Your task to perform on an android device: turn off priority inbox in the gmail app Image 0: 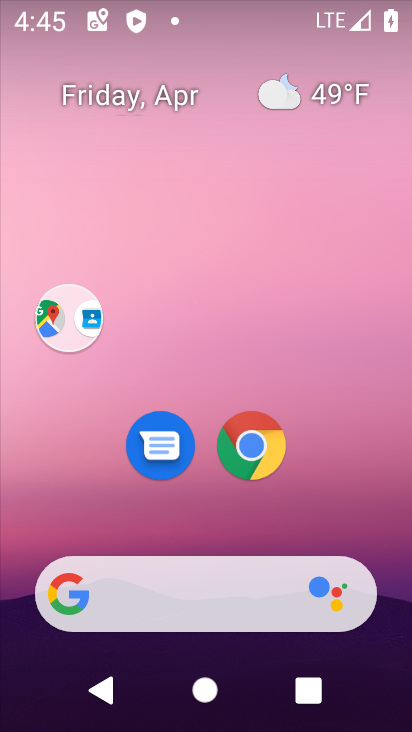
Step 0: drag from (324, 494) to (228, 75)
Your task to perform on an android device: turn off priority inbox in the gmail app Image 1: 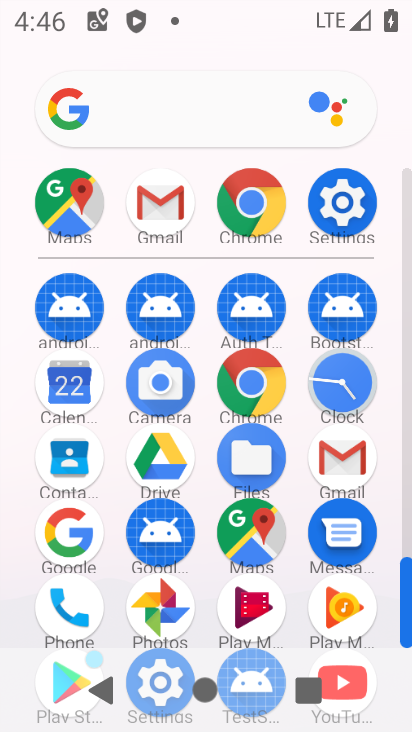
Step 1: click (348, 460)
Your task to perform on an android device: turn off priority inbox in the gmail app Image 2: 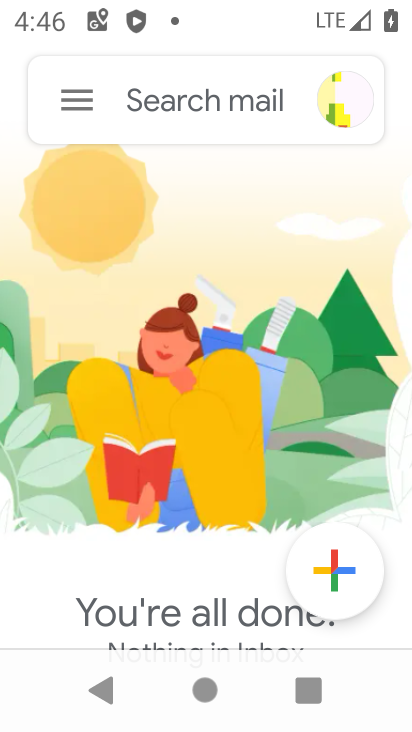
Step 2: click (68, 106)
Your task to perform on an android device: turn off priority inbox in the gmail app Image 3: 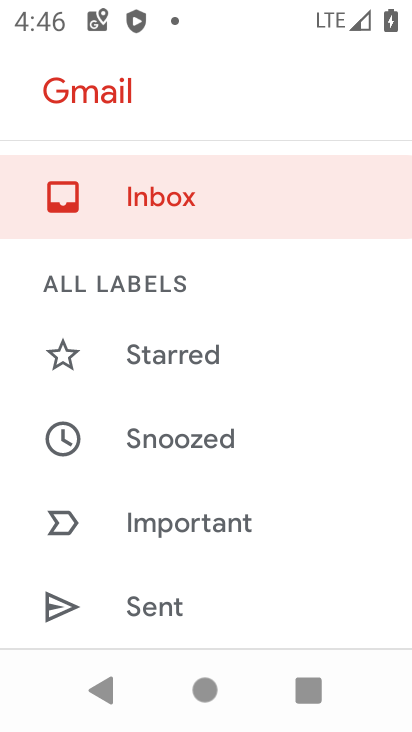
Step 3: drag from (157, 565) to (310, 155)
Your task to perform on an android device: turn off priority inbox in the gmail app Image 4: 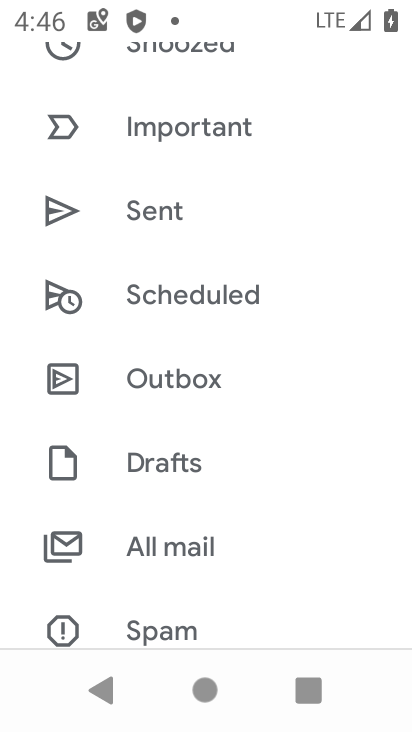
Step 4: drag from (184, 491) to (215, 221)
Your task to perform on an android device: turn off priority inbox in the gmail app Image 5: 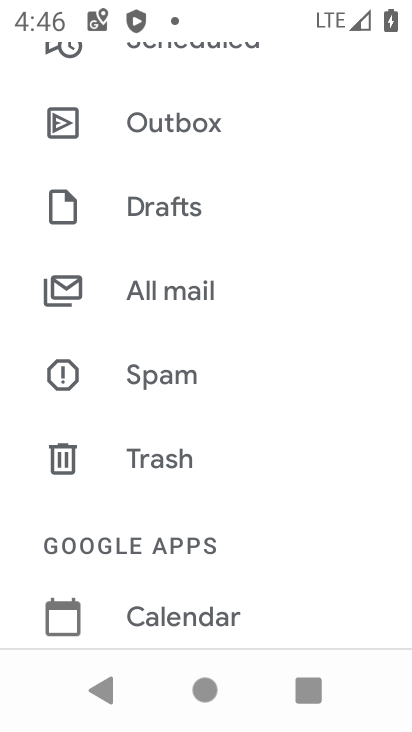
Step 5: drag from (254, 580) to (299, 176)
Your task to perform on an android device: turn off priority inbox in the gmail app Image 6: 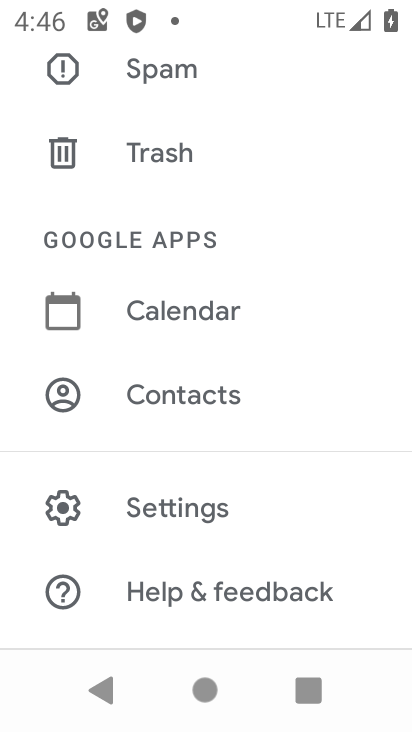
Step 6: click (176, 509)
Your task to perform on an android device: turn off priority inbox in the gmail app Image 7: 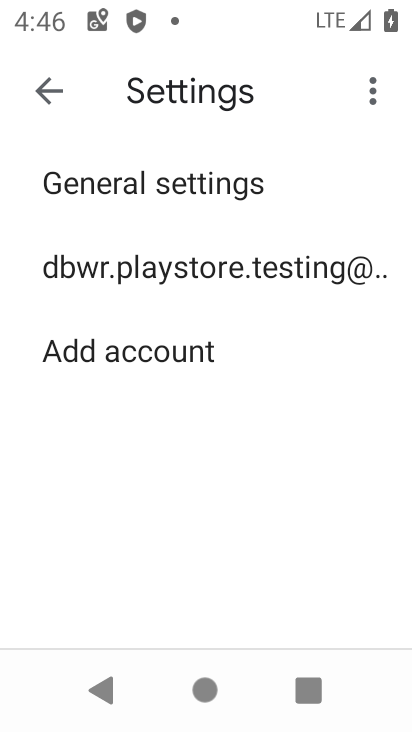
Step 7: click (219, 276)
Your task to perform on an android device: turn off priority inbox in the gmail app Image 8: 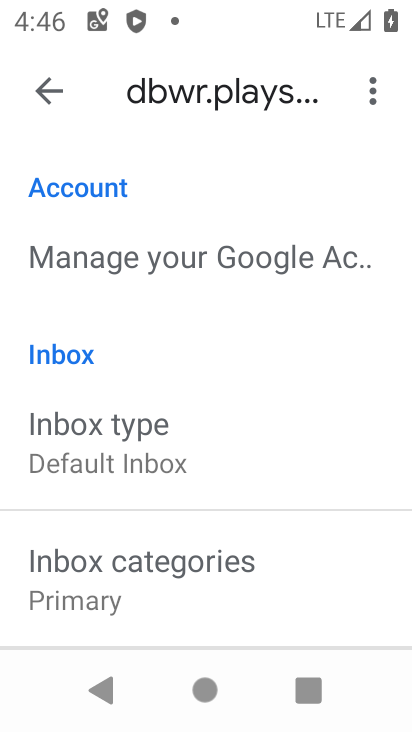
Step 8: click (117, 437)
Your task to perform on an android device: turn off priority inbox in the gmail app Image 9: 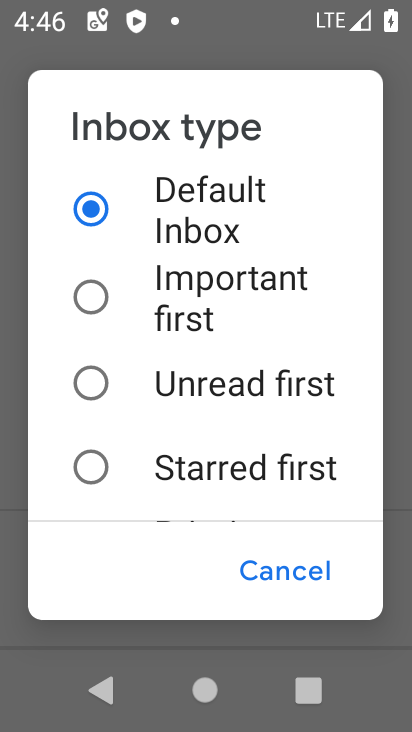
Step 9: task complete